Your task to perform on an android device: check data usage Image 0: 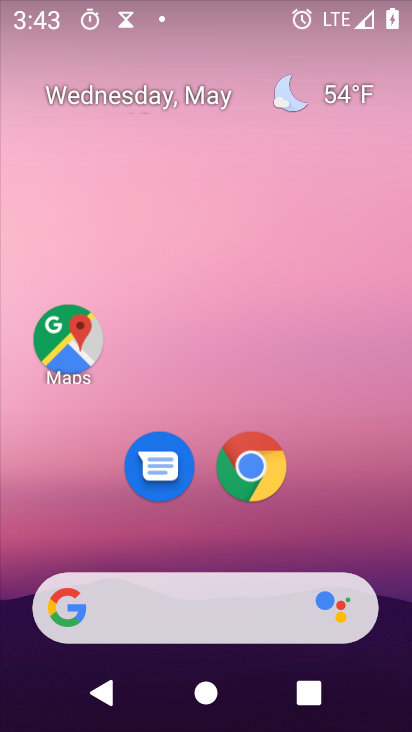
Step 0: drag from (356, 518) to (236, 123)
Your task to perform on an android device: check data usage Image 1: 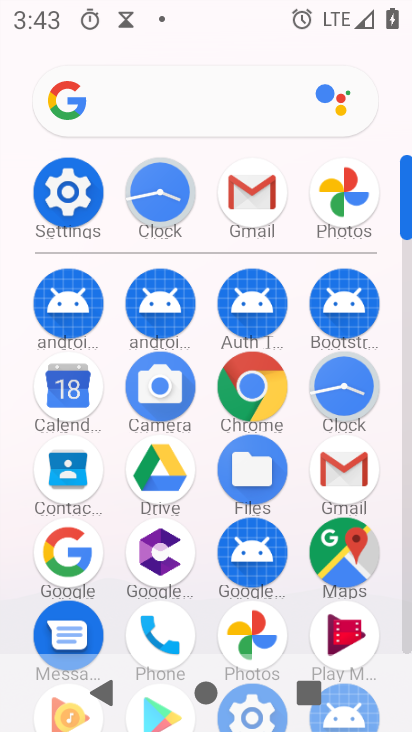
Step 1: click (81, 202)
Your task to perform on an android device: check data usage Image 2: 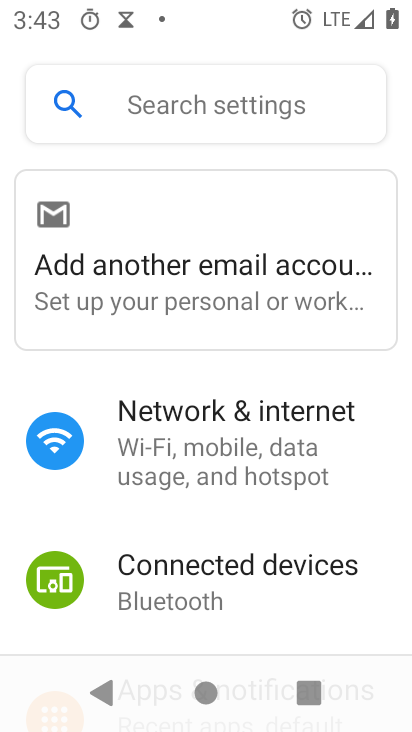
Step 2: drag from (257, 616) to (179, 209)
Your task to perform on an android device: check data usage Image 3: 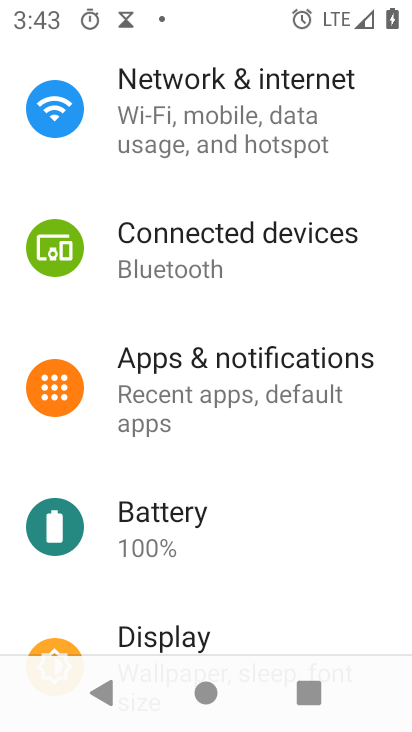
Step 3: drag from (343, 555) to (259, 650)
Your task to perform on an android device: check data usage Image 4: 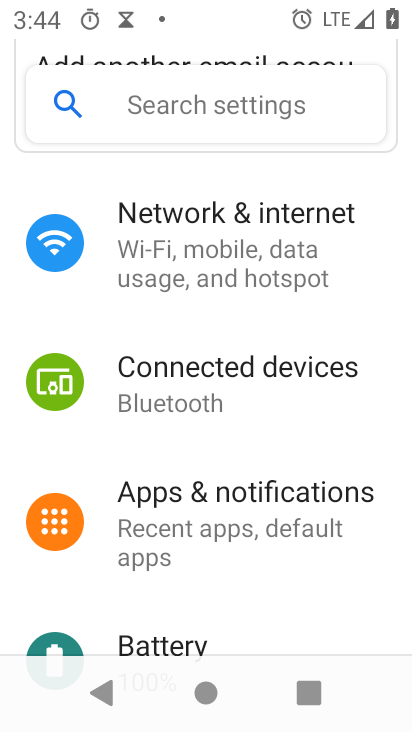
Step 4: click (262, 237)
Your task to perform on an android device: check data usage Image 5: 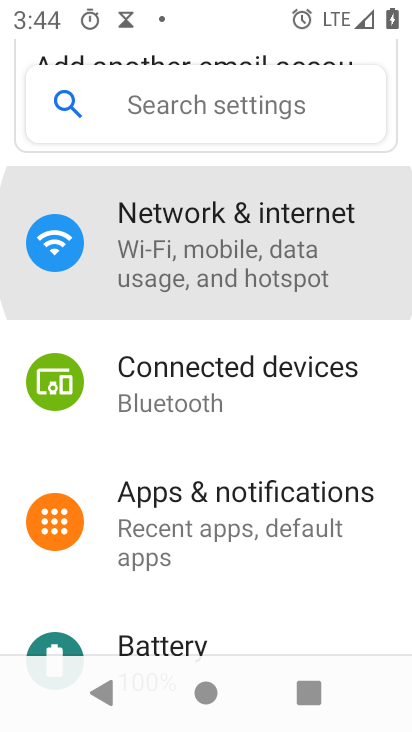
Step 5: click (262, 237)
Your task to perform on an android device: check data usage Image 6: 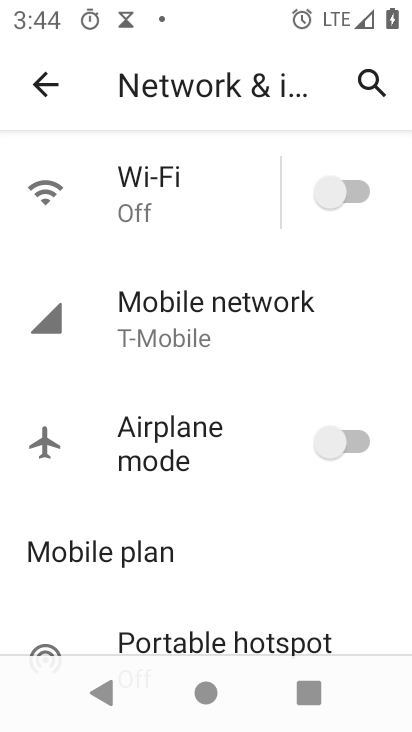
Step 6: click (238, 195)
Your task to perform on an android device: check data usage Image 7: 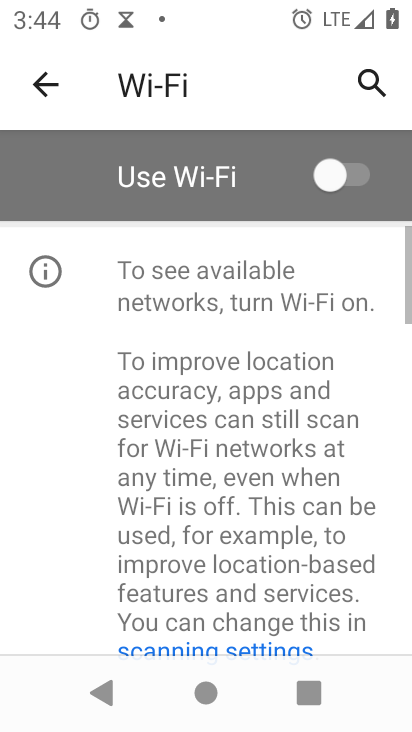
Step 7: drag from (296, 541) to (227, 70)
Your task to perform on an android device: check data usage Image 8: 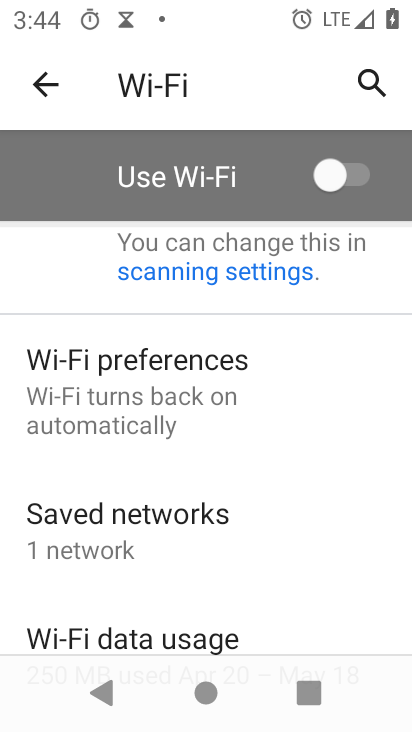
Step 8: drag from (302, 577) to (209, 94)
Your task to perform on an android device: check data usage Image 9: 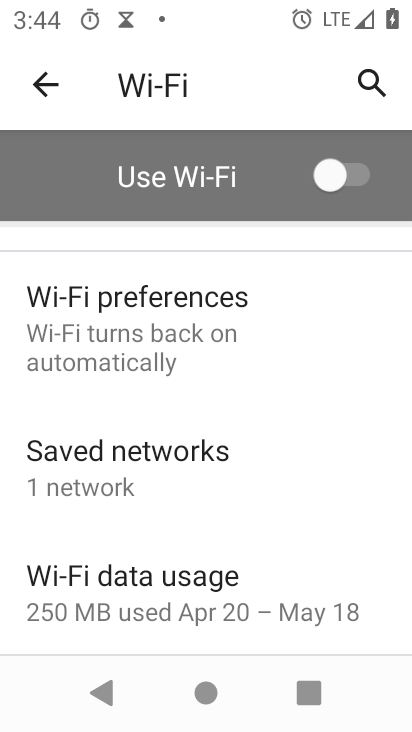
Step 9: drag from (301, 483) to (269, 295)
Your task to perform on an android device: check data usage Image 10: 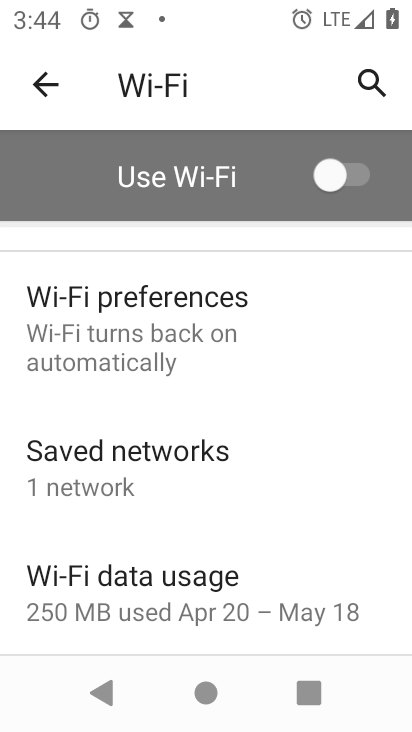
Step 10: click (227, 588)
Your task to perform on an android device: check data usage Image 11: 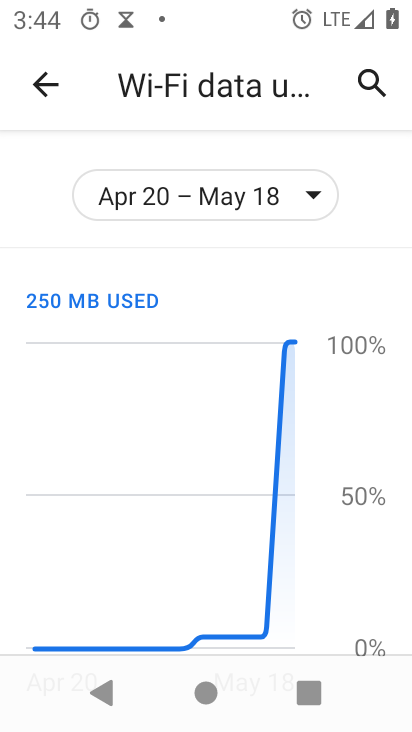
Step 11: task complete